Your task to perform on an android device: change the upload size in google photos Image 0: 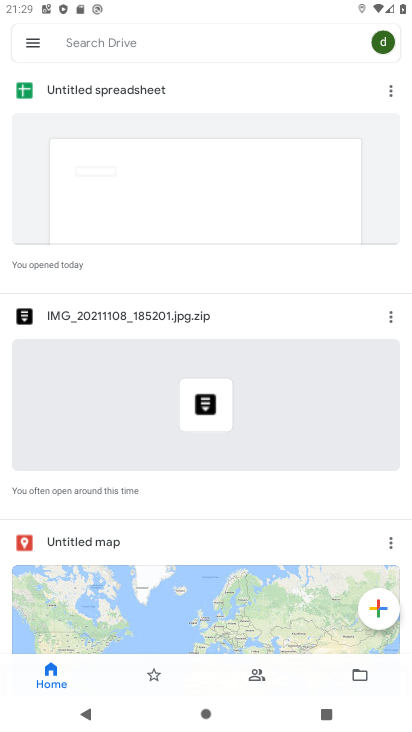
Step 0: press home button
Your task to perform on an android device: change the upload size in google photos Image 1: 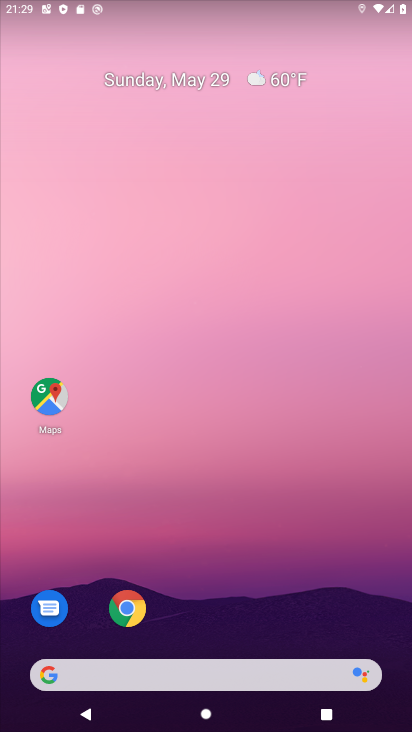
Step 1: drag from (382, 618) to (381, 284)
Your task to perform on an android device: change the upload size in google photos Image 2: 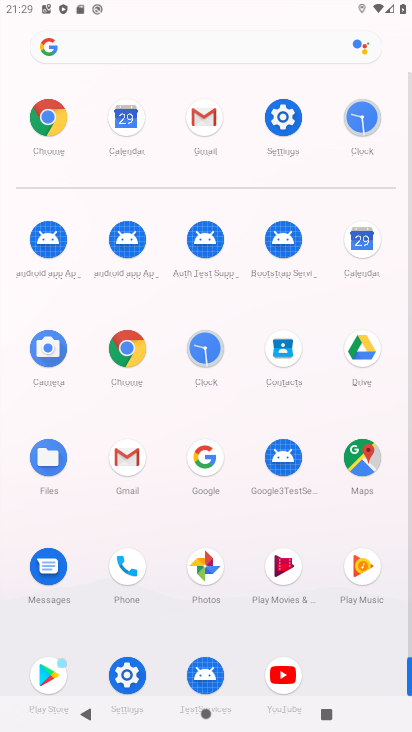
Step 2: click (213, 571)
Your task to perform on an android device: change the upload size in google photos Image 3: 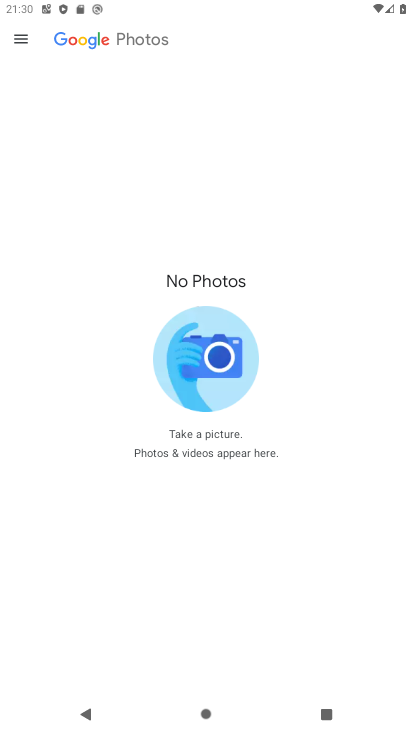
Step 3: click (19, 34)
Your task to perform on an android device: change the upload size in google photos Image 4: 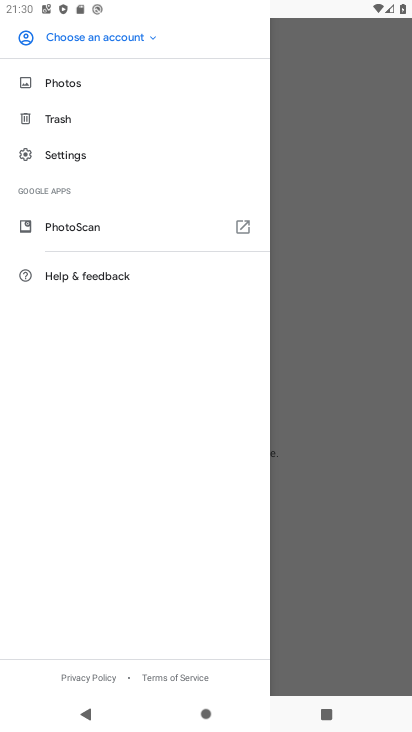
Step 4: click (74, 156)
Your task to perform on an android device: change the upload size in google photos Image 5: 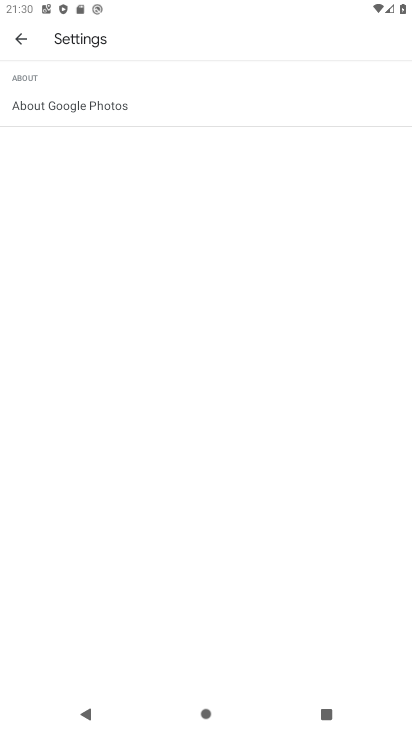
Step 5: click (23, 38)
Your task to perform on an android device: change the upload size in google photos Image 6: 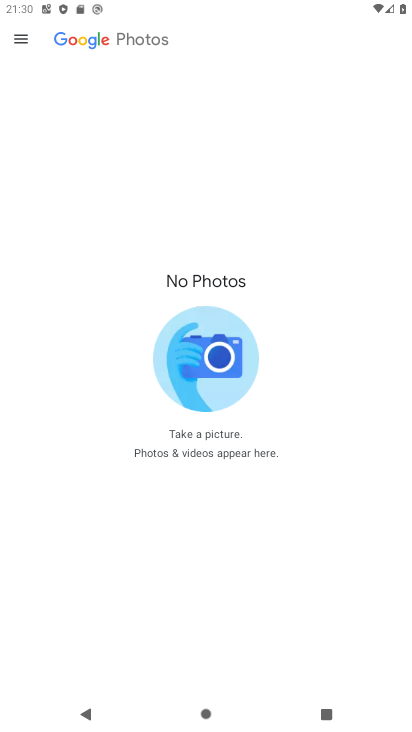
Step 6: click (23, 38)
Your task to perform on an android device: change the upload size in google photos Image 7: 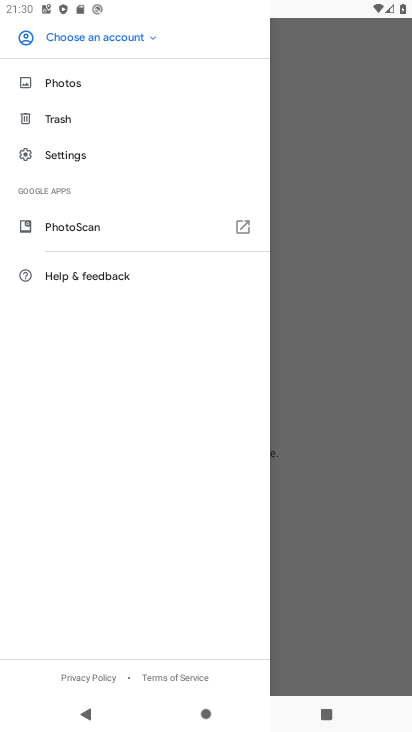
Step 7: click (67, 152)
Your task to perform on an android device: change the upload size in google photos Image 8: 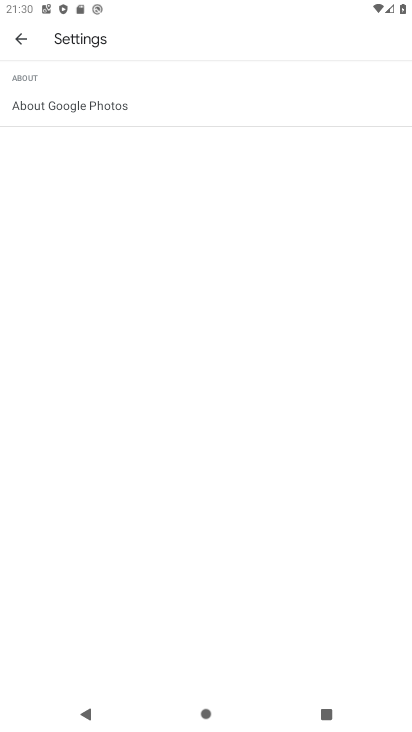
Step 8: click (88, 104)
Your task to perform on an android device: change the upload size in google photos Image 9: 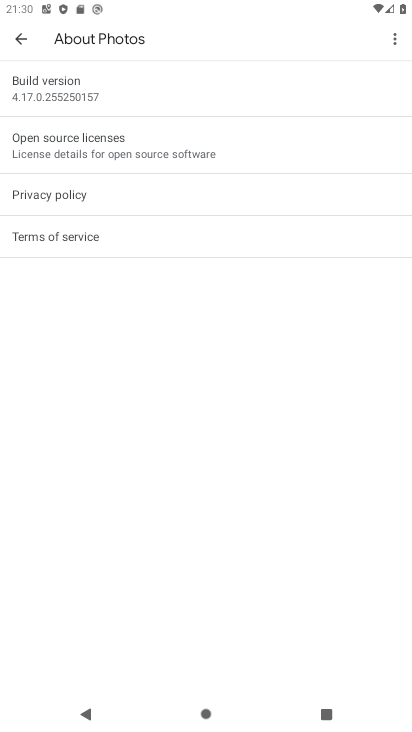
Step 9: click (18, 37)
Your task to perform on an android device: change the upload size in google photos Image 10: 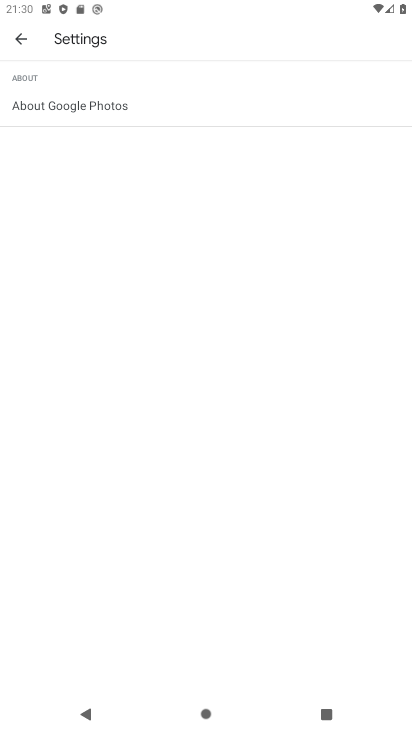
Step 10: click (18, 37)
Your task to perform on an android device: change the upload size in google photos Image 11: 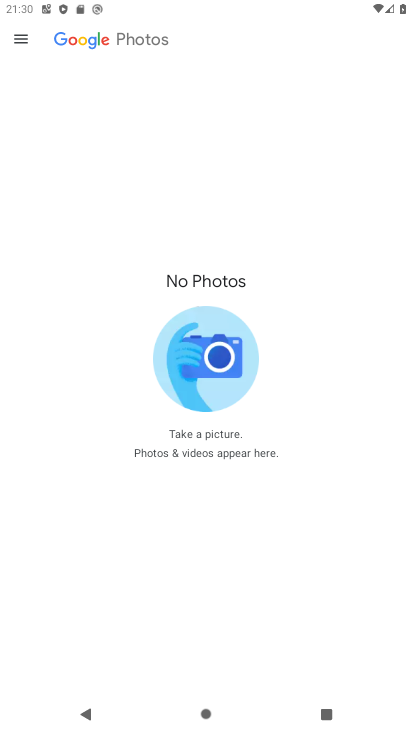
Step 11: click (18, 37)
Your task to perform on an android device: change the upload size in google photos Image 12: 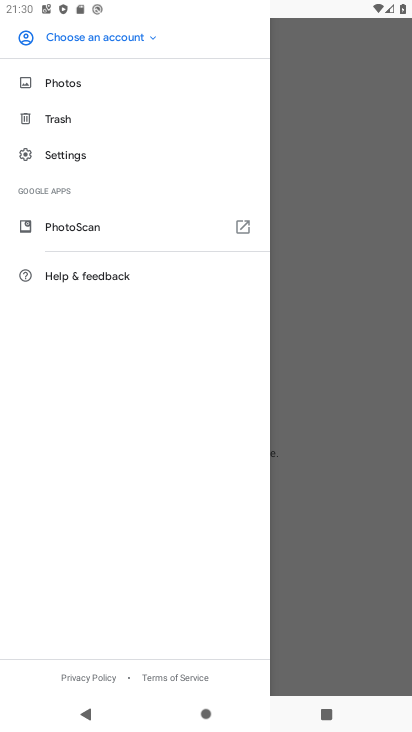
Step 12: click (79, 161)
Your task to perform on an android device: change the upload size in google photos Image 13: 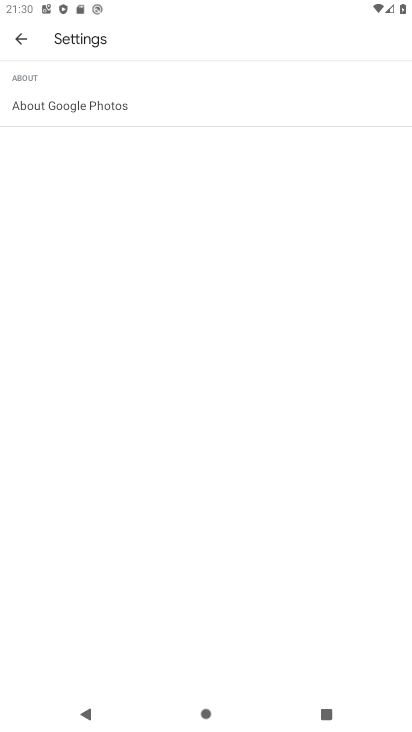
Step 13: task complete